Your task to perform on an android device: Open Chrome and go to the settings page Image 0: 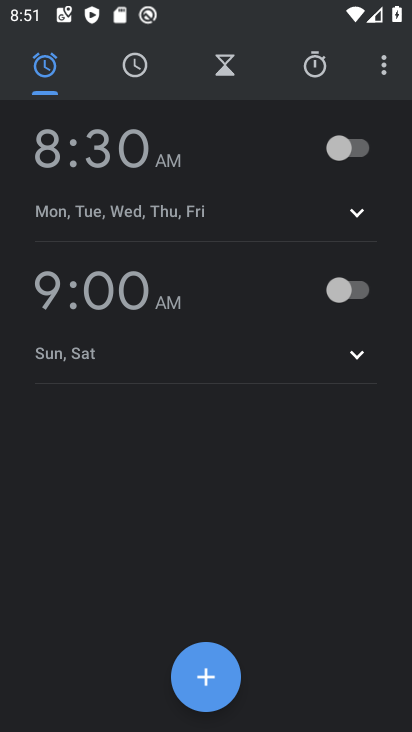
Step 0: press home button
Your task to perform on an android device: Open Chrome and go to the settings page Image 1: 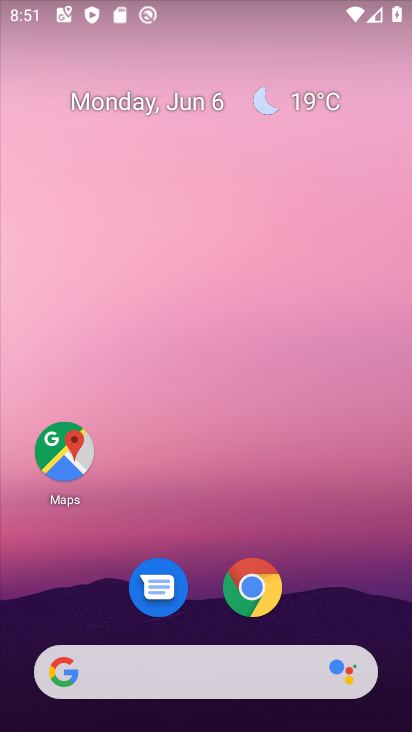
Step 1: click (254, 582)
Your task to perform on an android device: Open Chrome and go to the settings page Image 2: 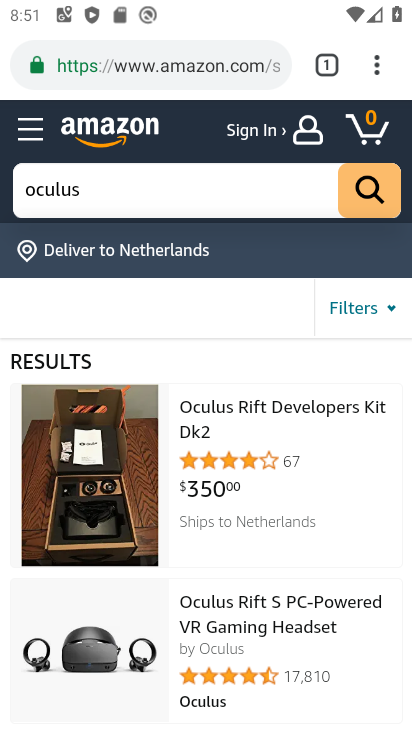
Step 2: task complete